Your task to perform on an android device: Open Amazon Image 0: 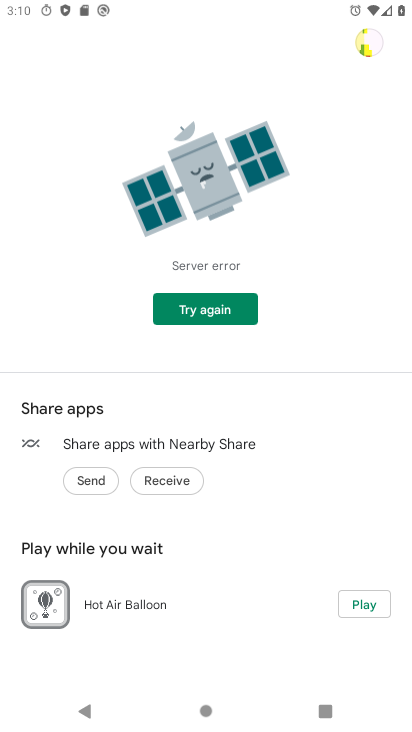
Step 0: task impossible